Your task to perform on an android device: open wifi settings Image 0: 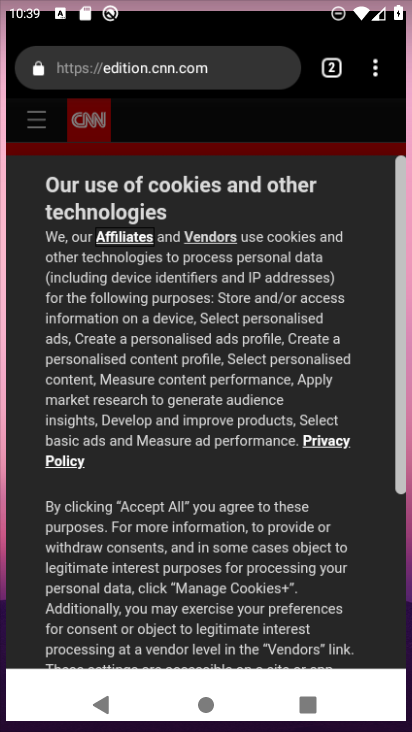
Step 0: click (130, 554)
Your task to perform on an android device: open wifi settings Image 1: 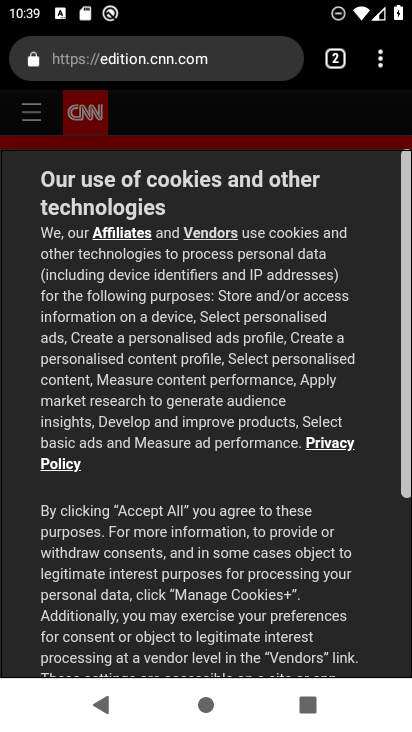
Step 1: drag from (240, 8) to (303, 390)
Your task to perform on an android device: open wifi settings Image 2: 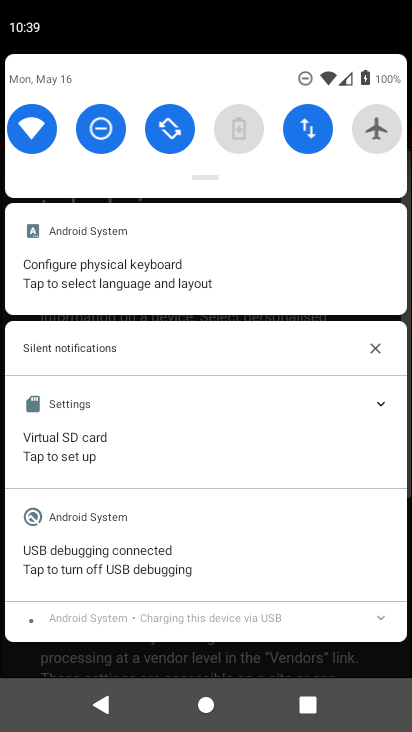
Step 2: click (49, 120)
Your task to perform on an android device: open wifi settings Image 3: 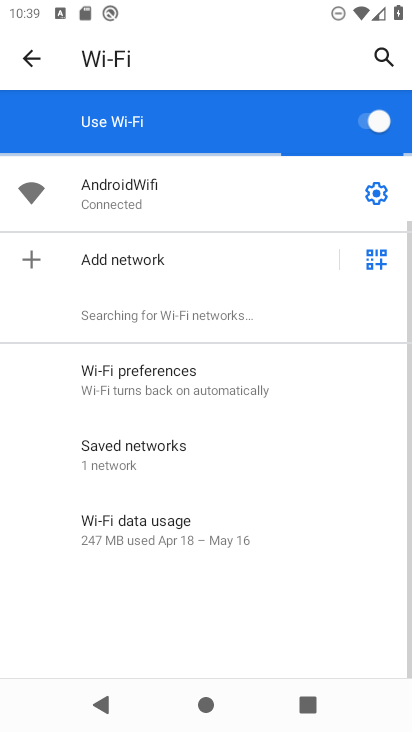
Step 3: task complete